Your task to perform on an android device: Search for sushi restaurants on Maps Image 0: 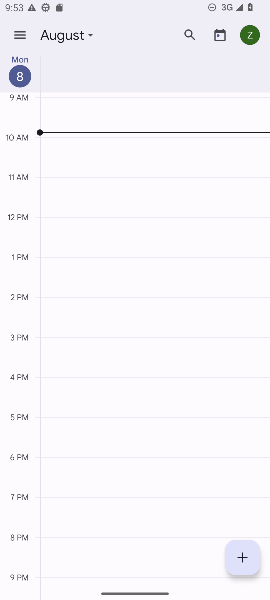
Step 0: press home button
Your task to perform on an android device: Search for sushi restaurants on Maps Image 1: 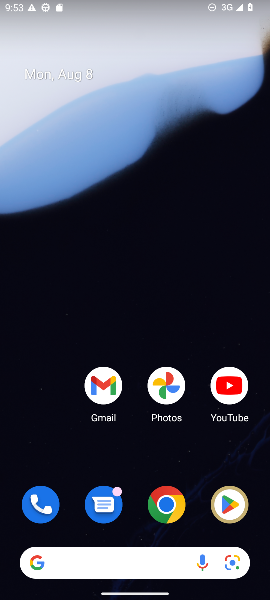
Step 1: drag from (120, 450) to (175, 51)
Your task to perform on an android device: Search for sushi restaurants on Maps Image 2: 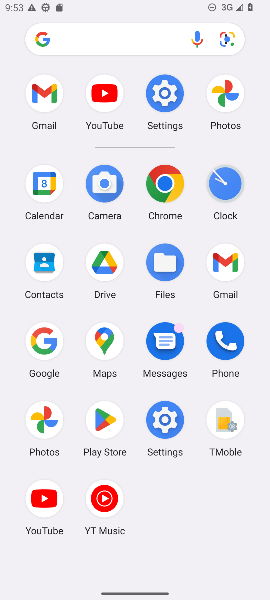
Step 2: click (108, 339)
Your task to perform on an android device: Search for sushi restaurants on Maps Image 3: 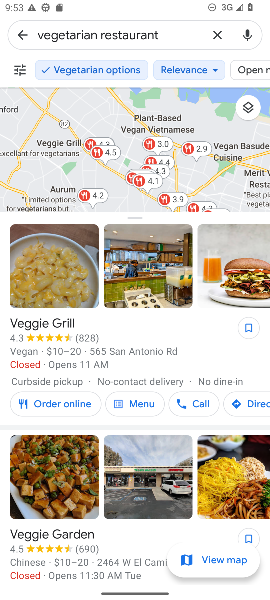
Step 3: click (78, 36)
Your task to perform on an android device: Search for sushi restaurants on Maps Image 4: 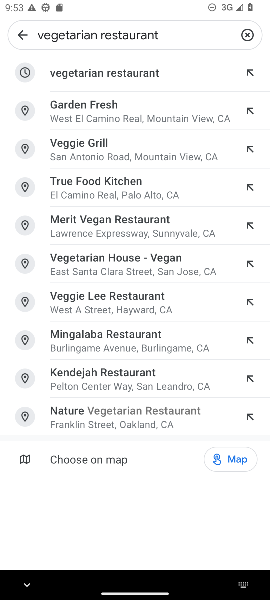
Step 4: click (70, 34)
Your task to perform on an android device: Search for sushi restaurants on Maps Image 5: 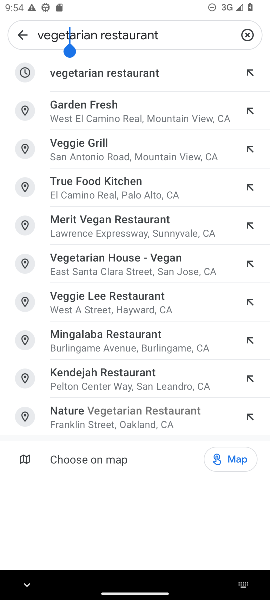
Step 5: click (71, 34)
Your task to perform on an android device: Search for sushi restaurants on Maps Image 6: 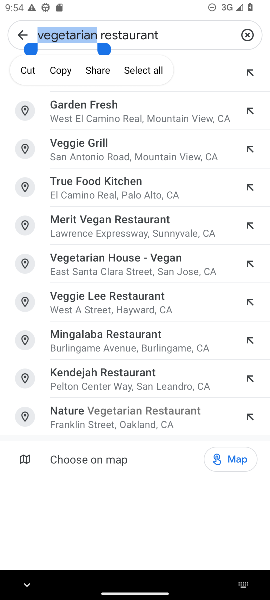
Step 6: type "Sushi"
Your task to perform on an android device: Search for sushi restaurants on Maps Image 7: 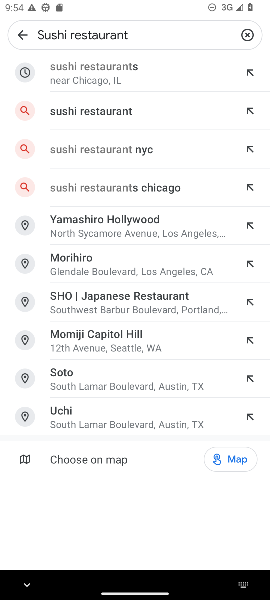
Step 7: click (133, 76)
Your task to perform on an android device: Search for sushi restaurants on Maps Image 8: 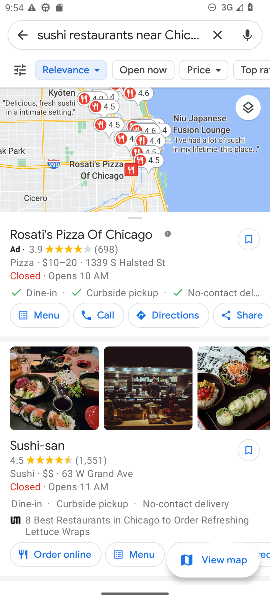
Step 8: task complete